Your task to perform on an android device: Go to network settings Image 0: 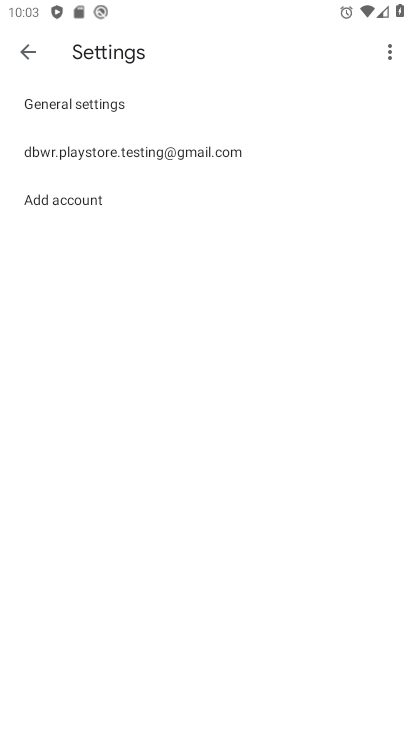
Step 0: press home button
Your task to perform on an android device: Go to network settings Image 1: 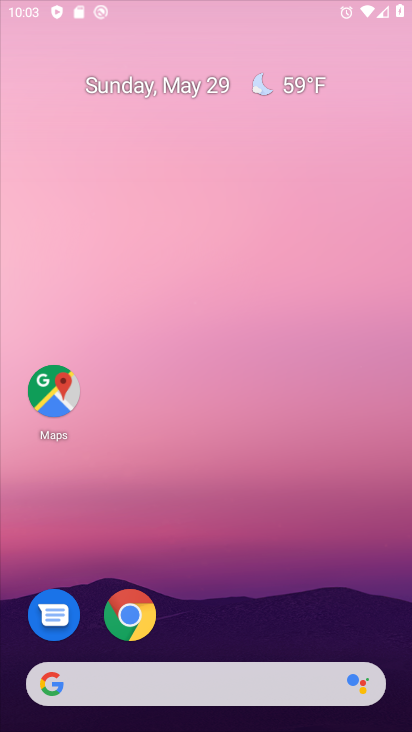
Step 1: drag from (221, 609) to (186, 75)
Your task to perform on an android device: Go to network settings Image 2: 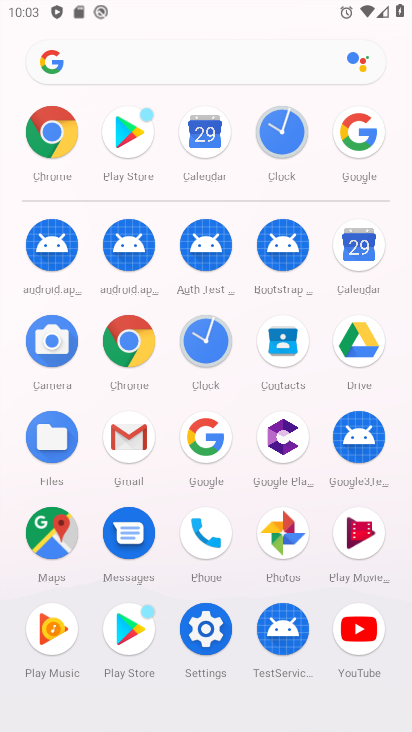
Step 2: click (219, 629)
Your task to perform on an android device: Go to network settings Image 3: 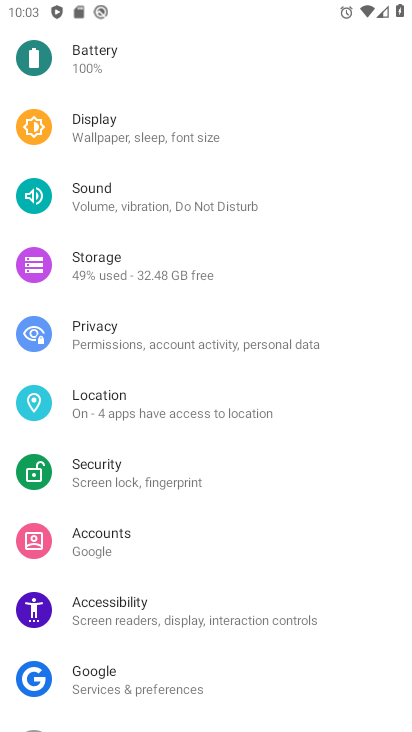
Step 3: drag from (148, 91) to (198, 582)
Your task to perform on an android device: Go to network settings Image 4: 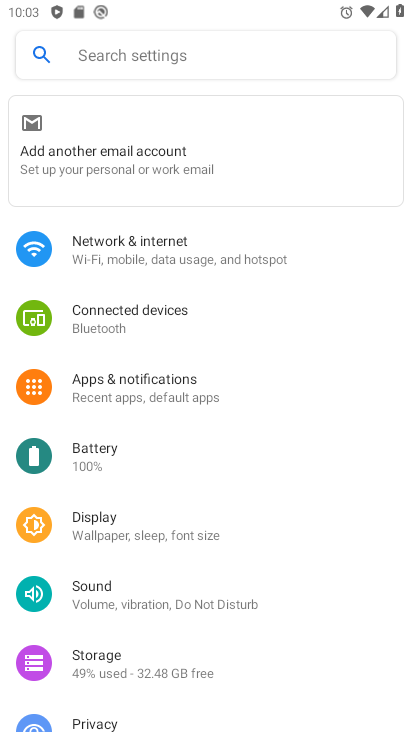
Step 4: click (123, 252)
Your task to perform on an android device: Go to network settings Image 5: 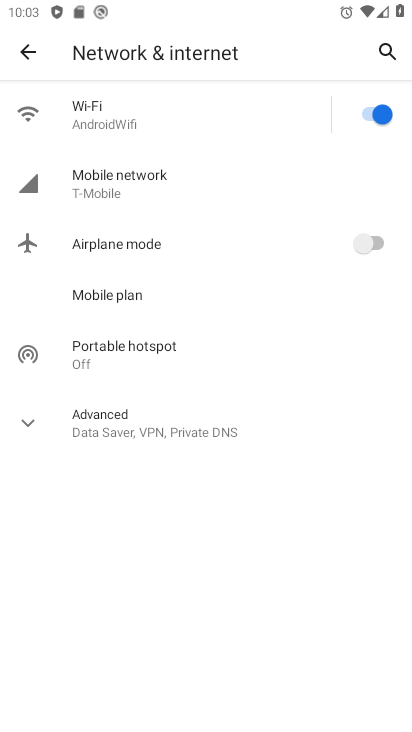
Step 5: click (135, 179)
Your task to perform on an android device: Go to network settings Image 6: 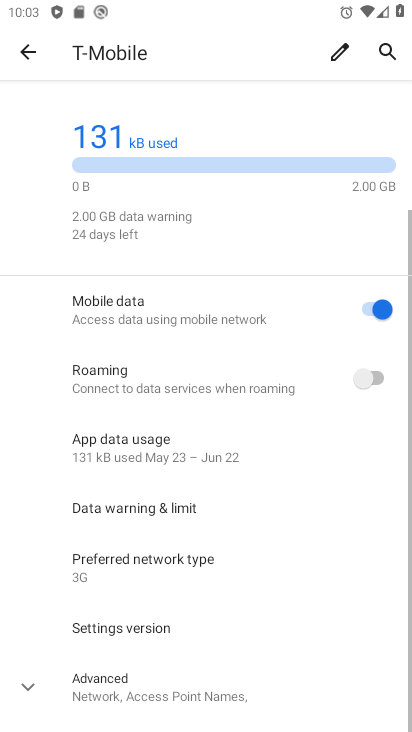
Step 6: task complete